Your task to perform on an android device: Open calendar and show me the third week of next month Image 0: 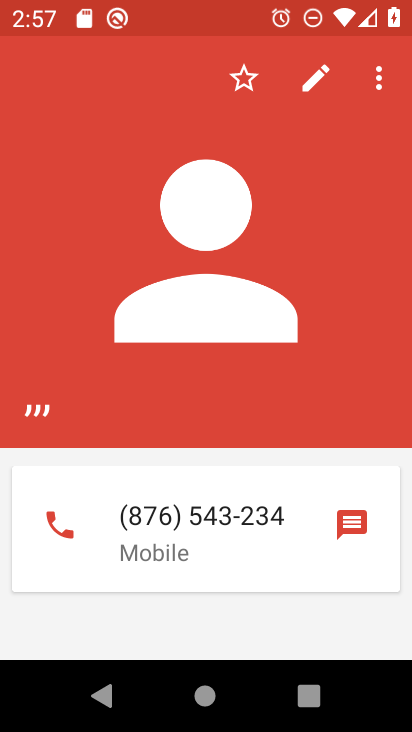
Step 0: press home button
Your task to perform on an android device: Open calendar and show me the third week of next month Image 1: 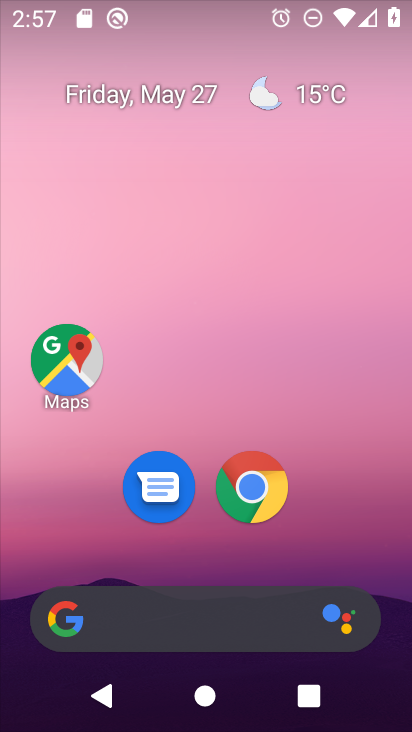
Step 1: click (130, 77)
Your task to perform on an android device: Open calendar and show me the third week of next month Image 2: 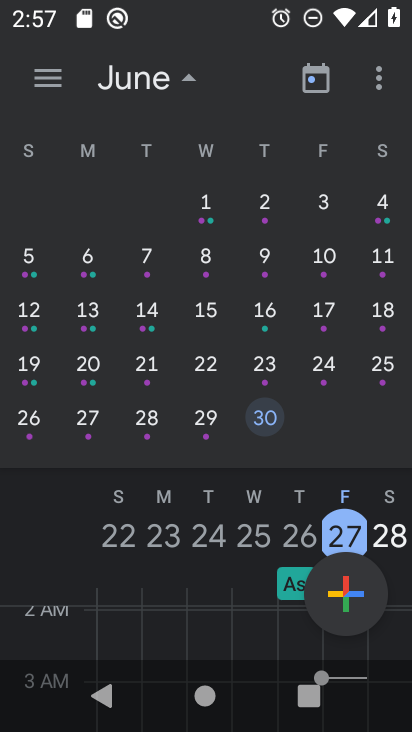
Step 2: click (281, 317)
Your task to perform on an android device: Open calendar and show me the third week of next month Image 3: 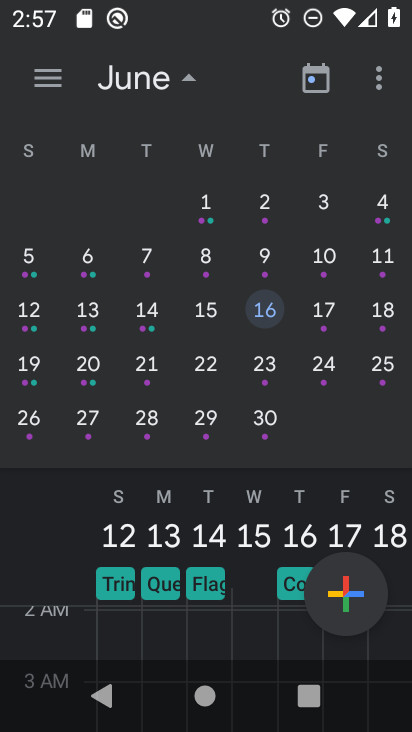
Step 3: task complete